Your task to perform on an android device: Is it going to rain today? Image 0: 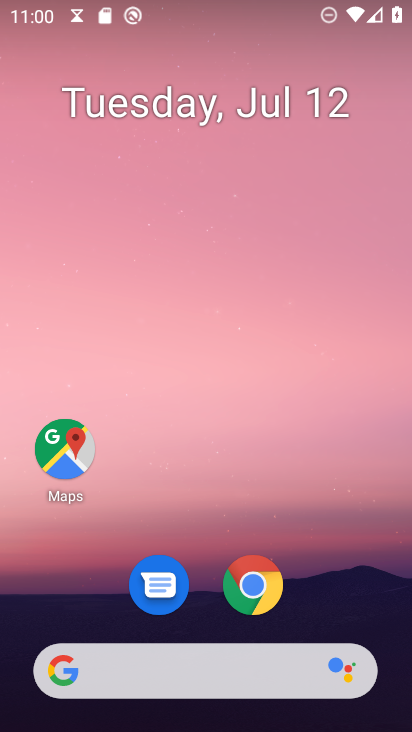
Step 0: click (163, 684)
Your task to perform on an android device: Is it going to rain today? Image 1: 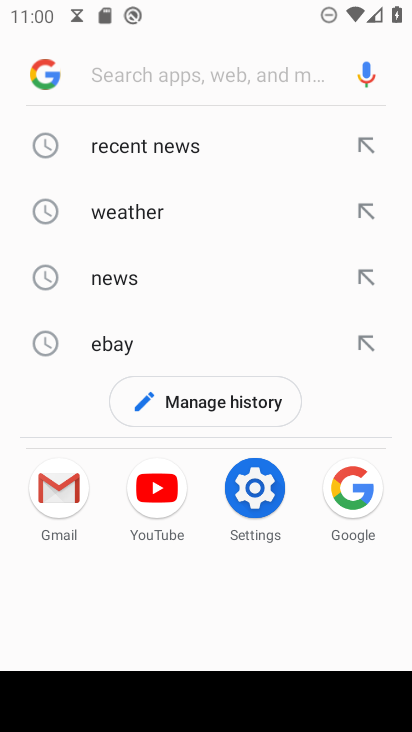
Step 1: type "Is it going to rain today"
Your task to perform on an android device: Is it going to rain today? Image 2: 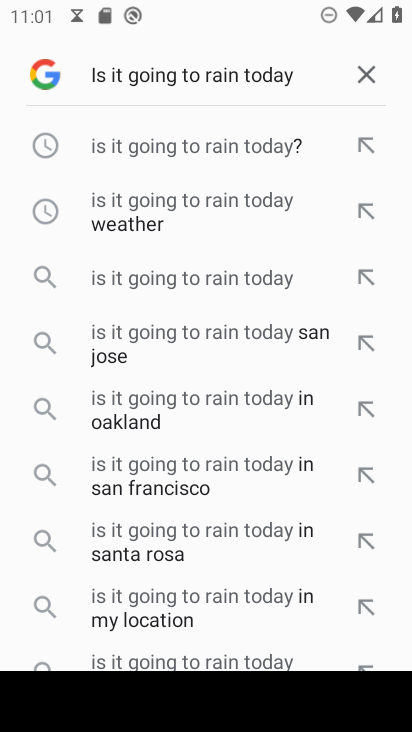
Step 2: click (215, 146)
Your task to perform on an android device: Is it going to rain today? Image 3: 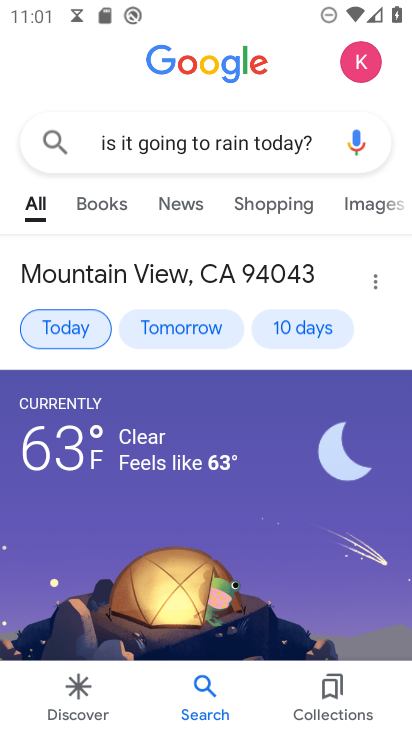
Step 3: task complete